Your task to perform on an android device: change alarm snooze length Image 0: 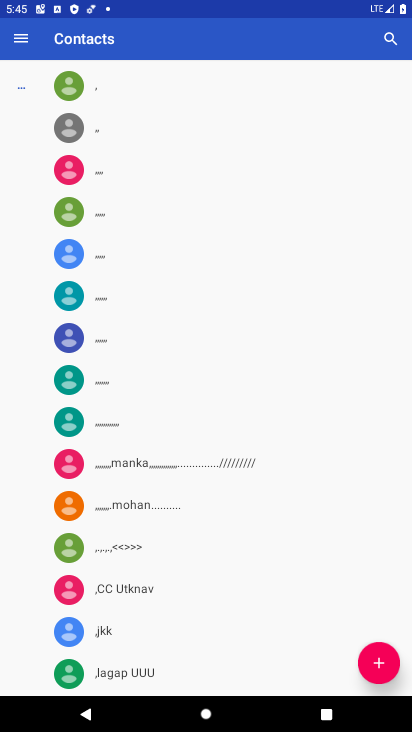
Step 0: press home button
Your task to perform on an android device: change alarm snooze length Image 1: 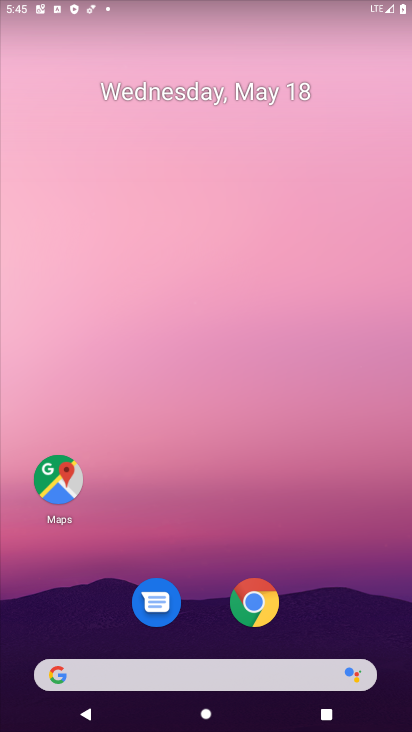
Step 1: drag from (339, 673) to (284, 41)
Your task to perform on an android device: change alarm snooze length Image 2: 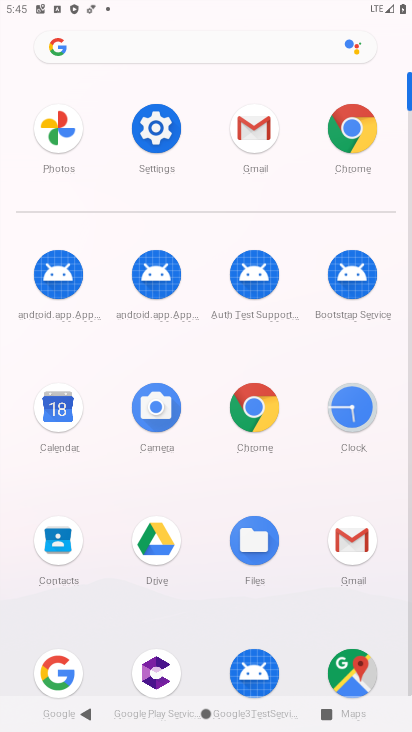
Step 2: click (344, 414)
Your task to perform on an android device: change alarm snooze length Image 3: 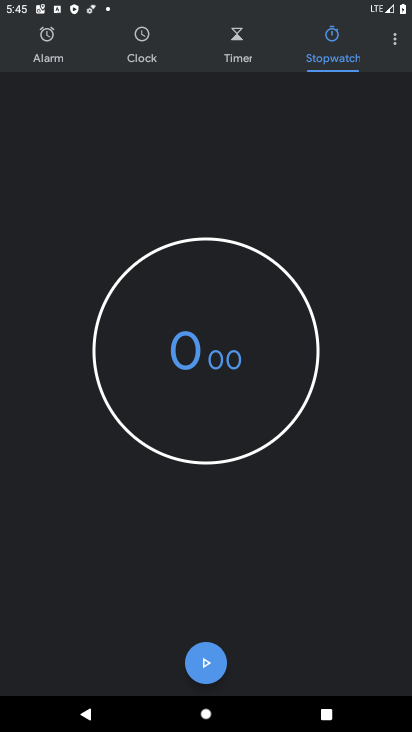
Step 3: click (388, 42)
Your task to perform on an android device: change alarm snooze length Image 4: 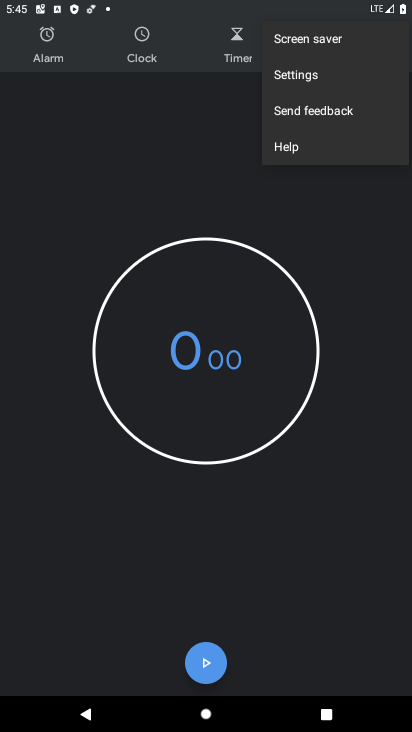
Step 4: click (317, 87)
Your task to perform on an android device: change alarm snooze length Image 5: 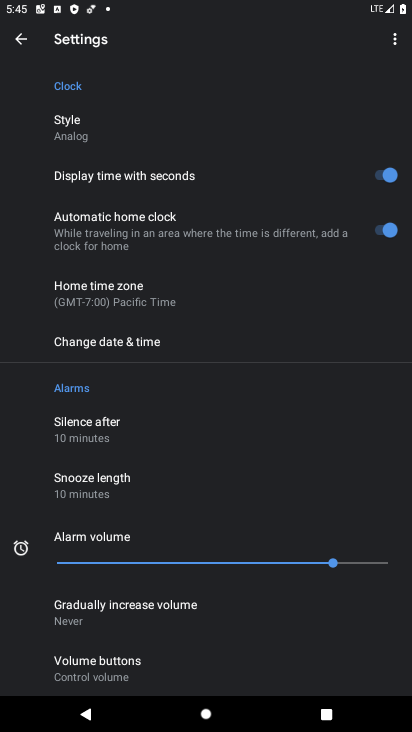
Step 5: click (124, 486)
Your task to perform on an android device: change alarm snooze length Image 6: 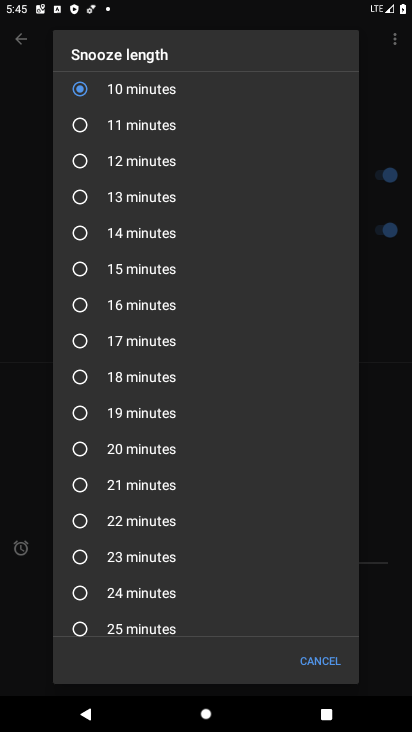
Step 6: click (108, 160)
Your task to perform on an android device: change alarm snooze length Image 7: 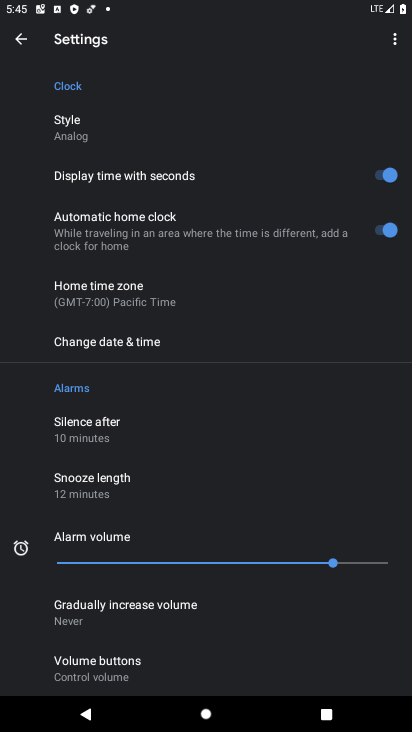
Step 7: task complete